Your task to perform on an android device: Show me productivity apps on the Play Store Image 0: 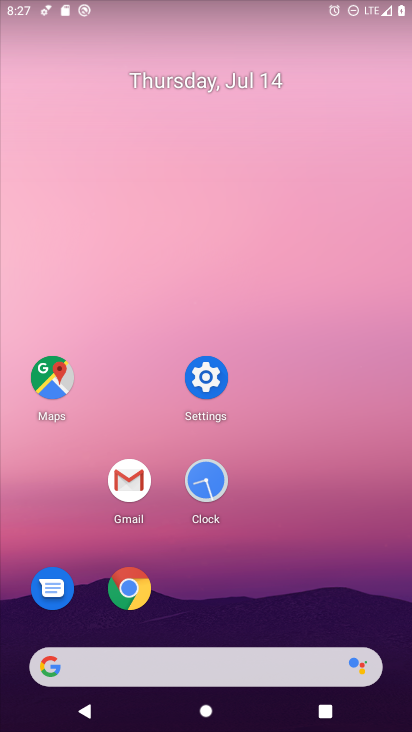
Step 0: drag from (373, 551) to (338, 207)
Your task to perform on an android device: Show me productivity apps on the Play Store Image 1: 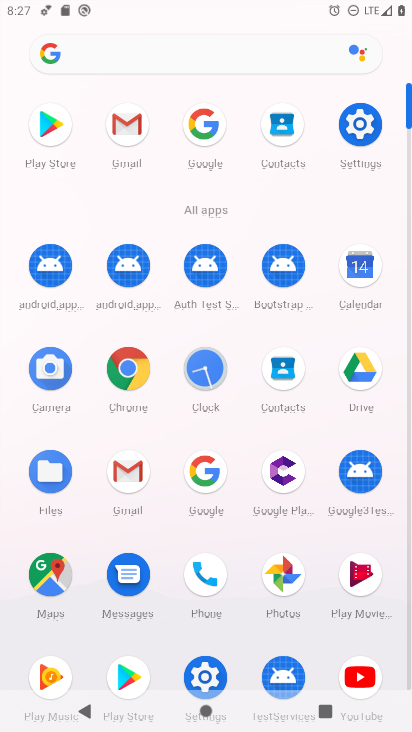
Step 1: click (130, 672)
Your task to perform on an android device: Show me productivity apps on the Play Store Image 2: 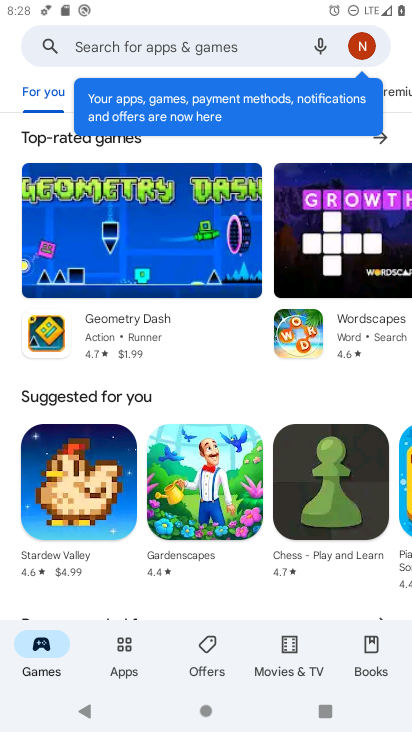
Step 2: click (148, 46)
Your task to perform on an android device: Show me productivity apps on the Play Store Image 3: 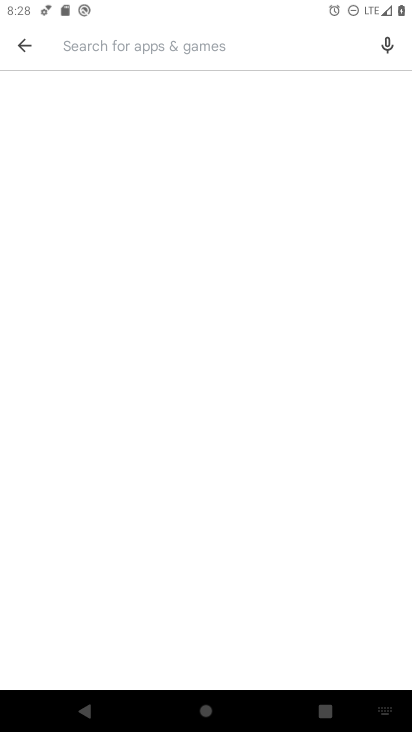
Step 3: type "productivity apps on the Play Store"
Your task to perform on an android device: Show me productivity apps on the Play Store Image 4: 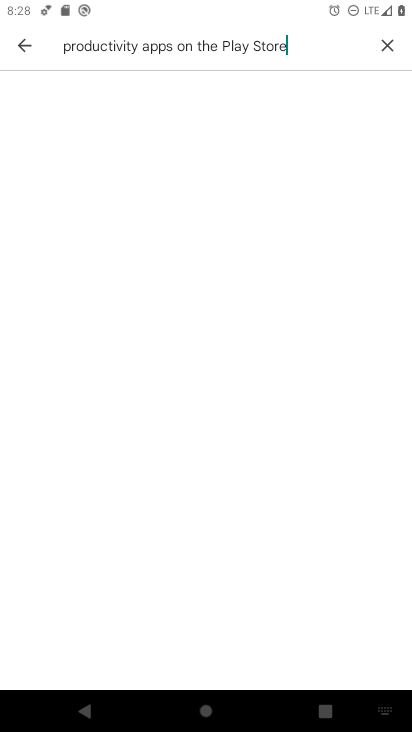
Step 4: task complete